Your task to perform on an android device: toggle notification dots Image 0: 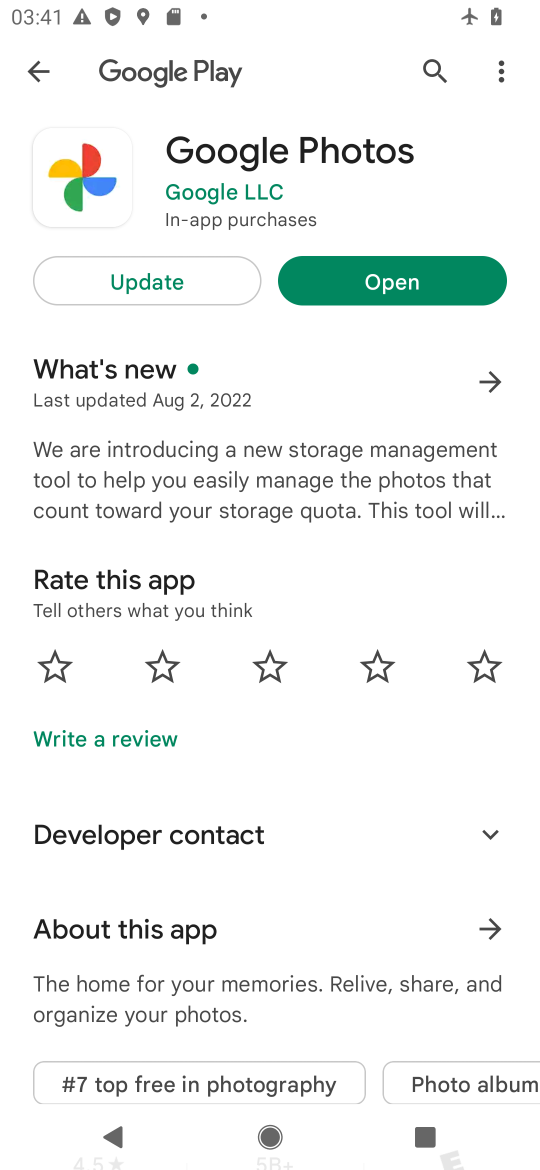
Step 0: press home button
Your task to perform on an android device: toggle notification dots Image 1: 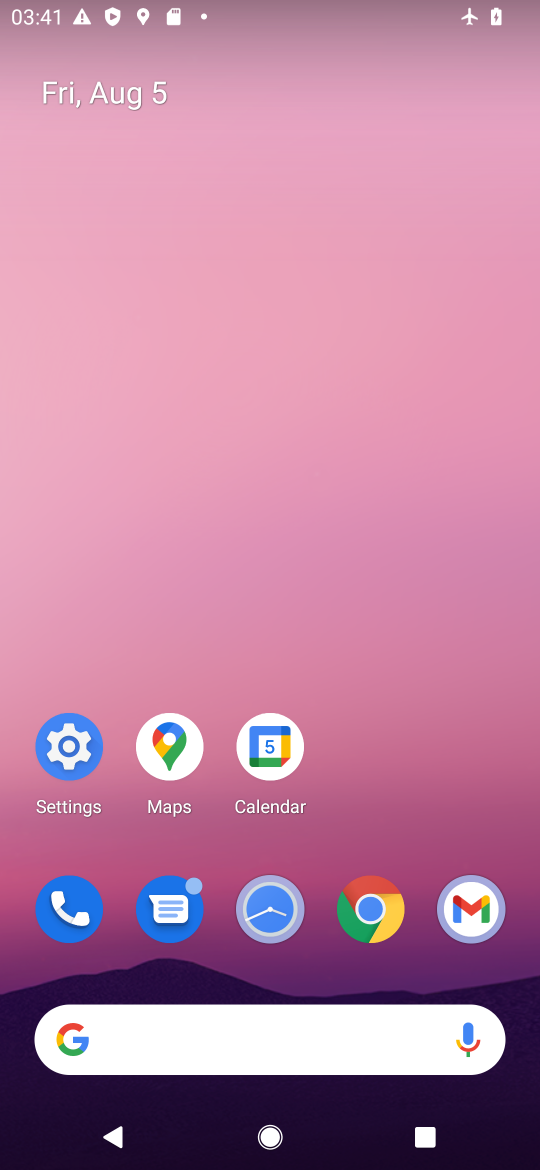
Step 1: click (74, 759)
Your task to perform on an android device: toggle notification dots Image 2: 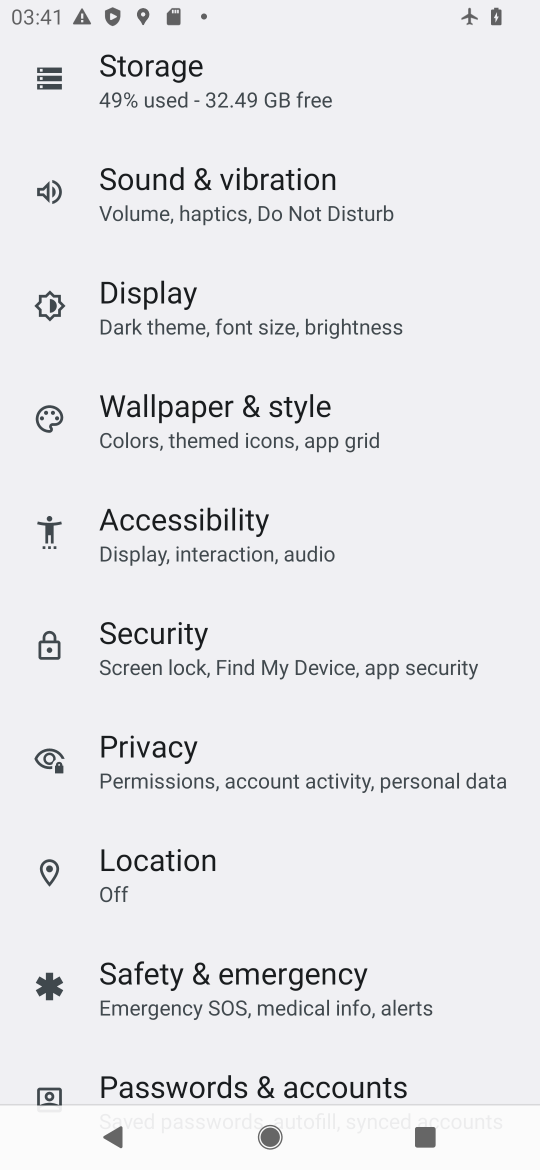
Step 2: drag from (449, 236) to (376, 854)
Your task to perform on an android device: toggle notification dots Image 3: 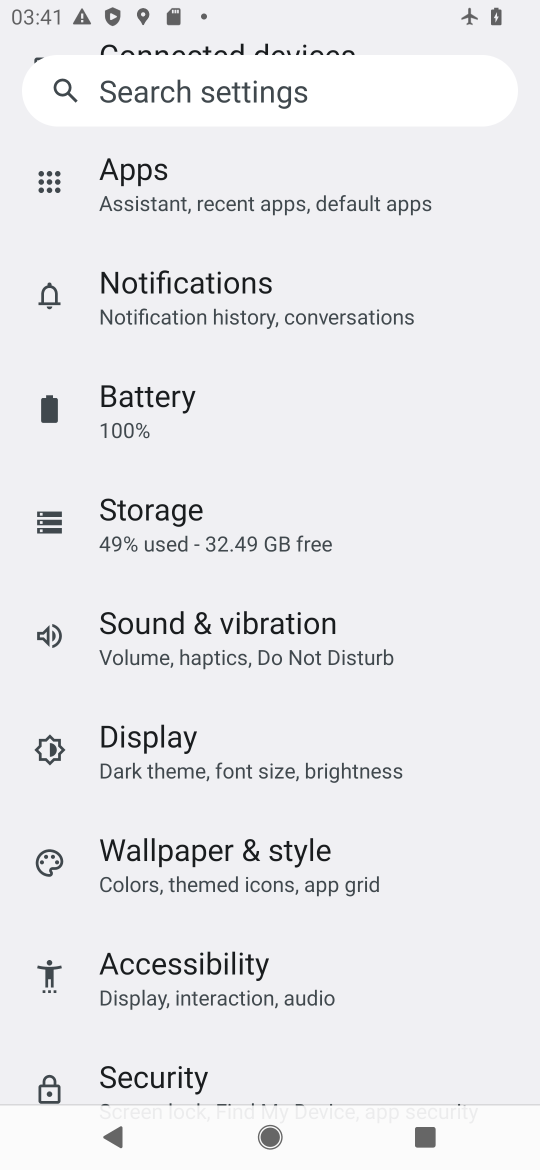
Step 3: click (202, 275)
Your task to perform on an android device: toggle notification dots Image 4: 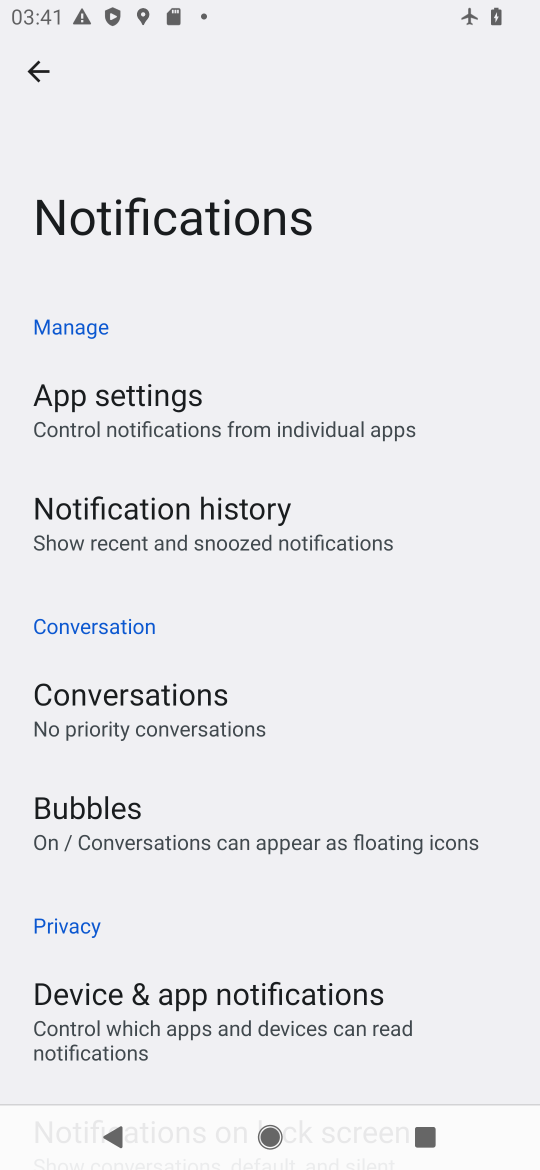
Step 4: drag from (352, 907) to (376, 337)
Your task to perform on an android device: toggle notification dots Image 5: 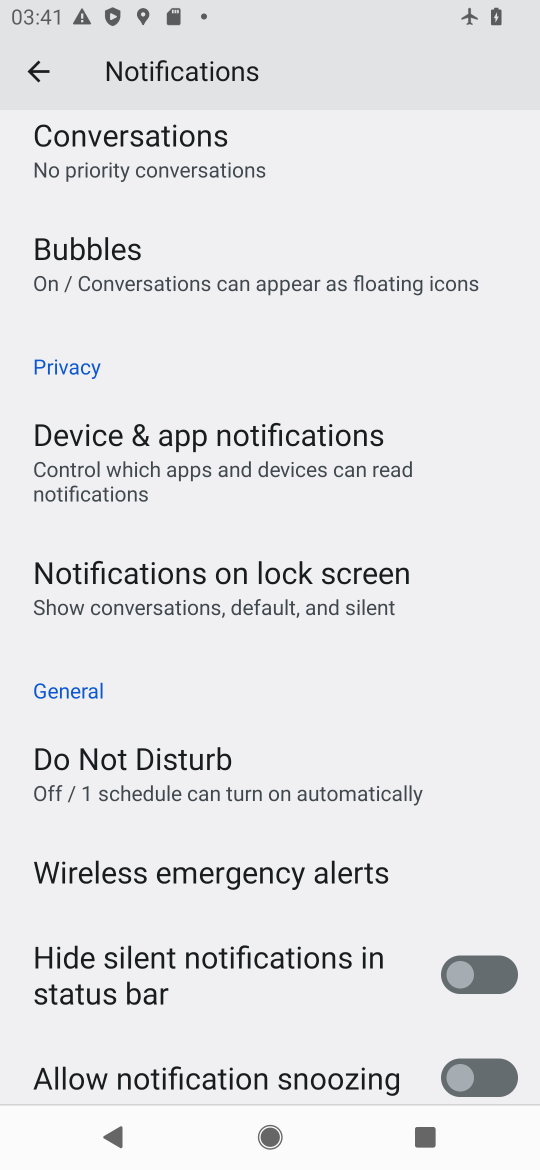
Step 5: drag from (424, 841) to (429, 190)
Your task to perform on an android device: toggle notification dots Image 6: 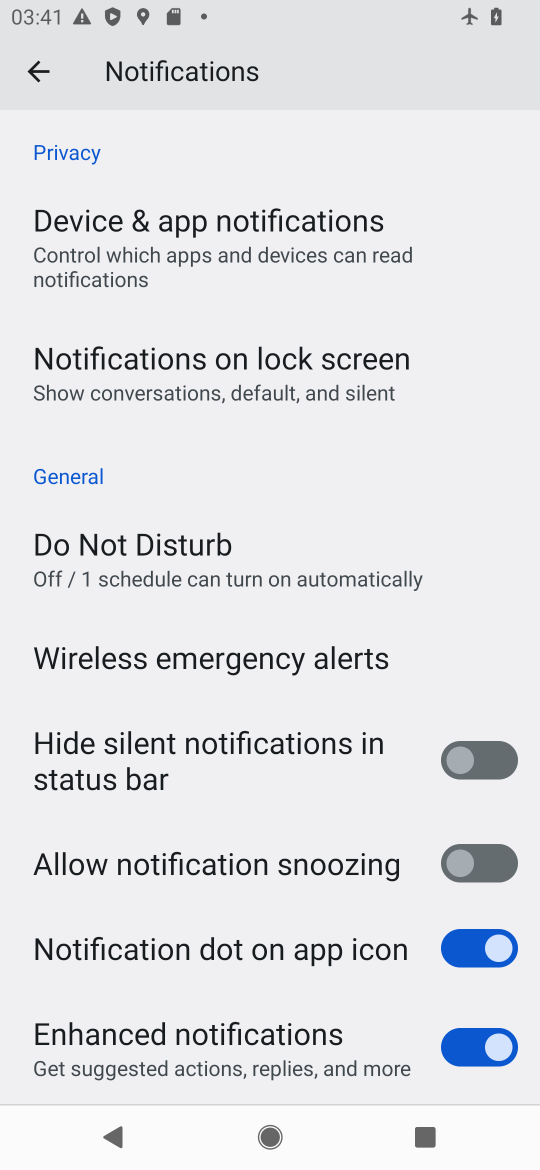
Step 6: drag from (338, 988) to (364, 266)
Your task to perform on an android device: toggle notification dots Image 7: 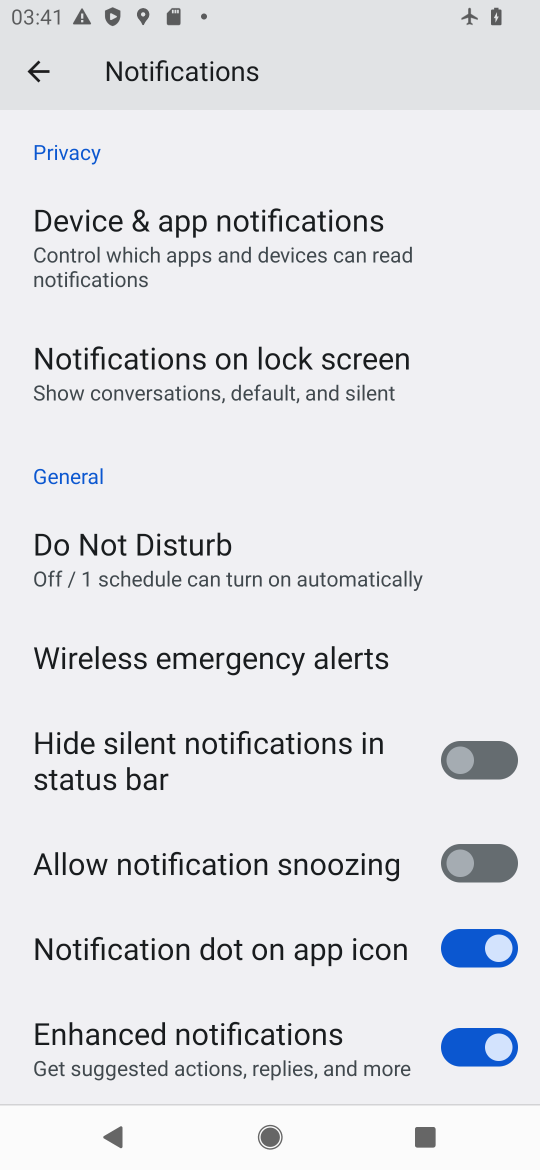
Step 7: click (485, 935)
Your task to perform on an android device: toggle notification dots Image 8: 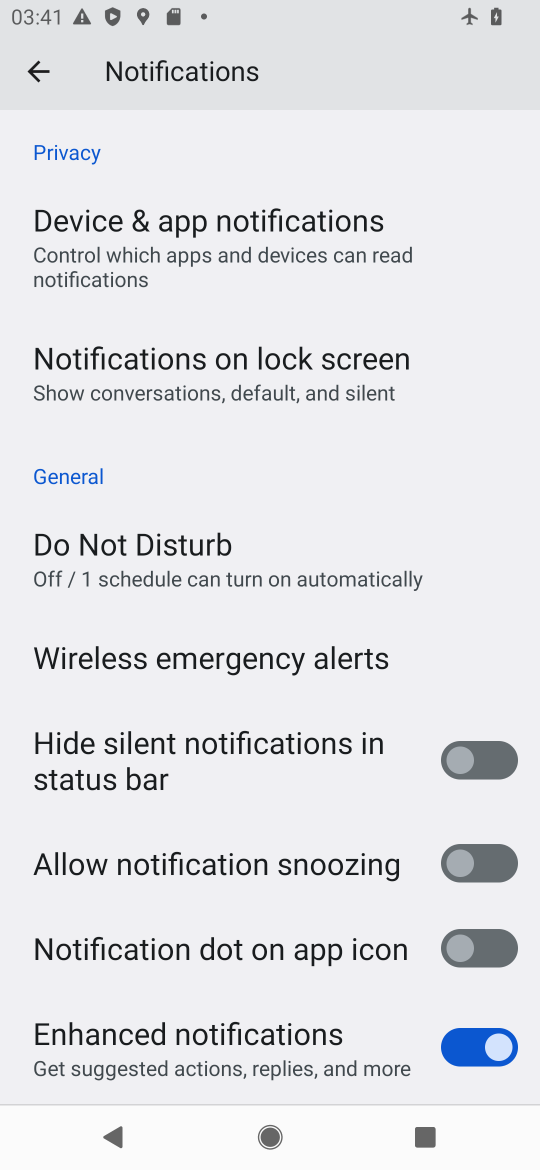
Step 8: task complete